Your task to perform on an android device: open wifi settings Image 0: 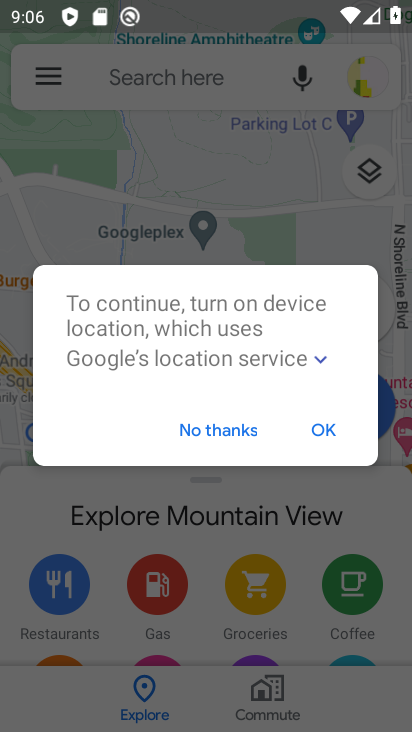
Step 0: press home button
Your task to perform on an android device: open wifi settings Image 1: 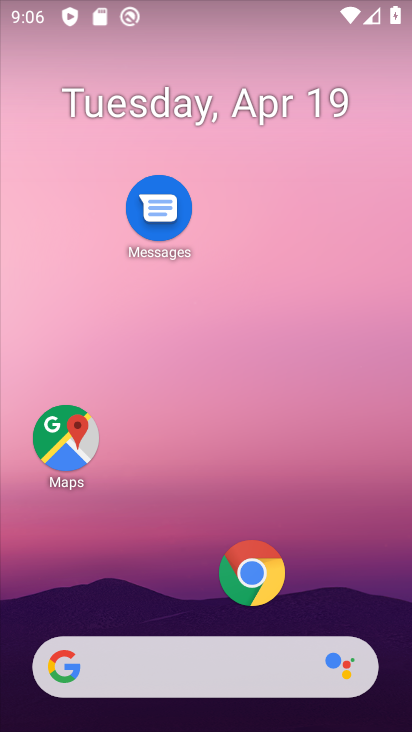
Step 1: drag from (149, 556) to (241, 163)
Your task to perform on an android device: open wifi settings Image 2: 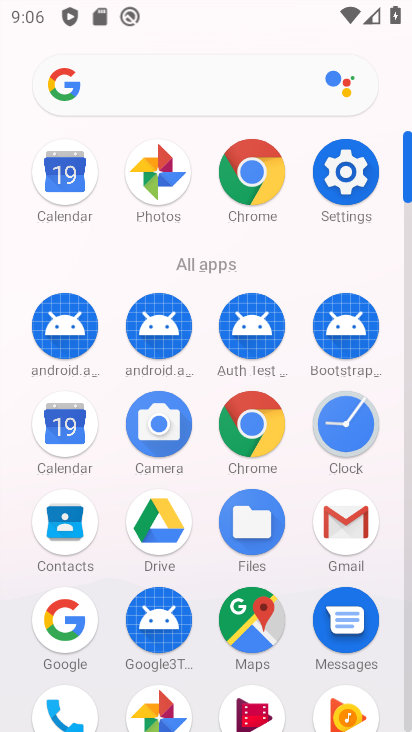
Step 2: click (346, 185)
Your task to perform on an android device: open wifi settings Image 3: 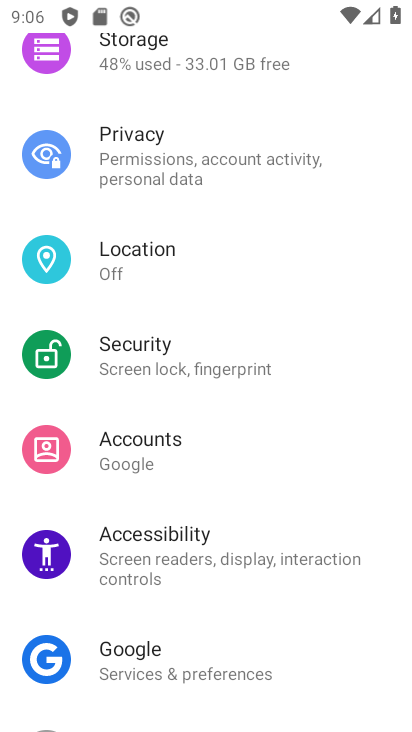
Step 3: drag from (249, 132) to (242, 573)
Your task to perform on an android device: open wifi settings Image 4: 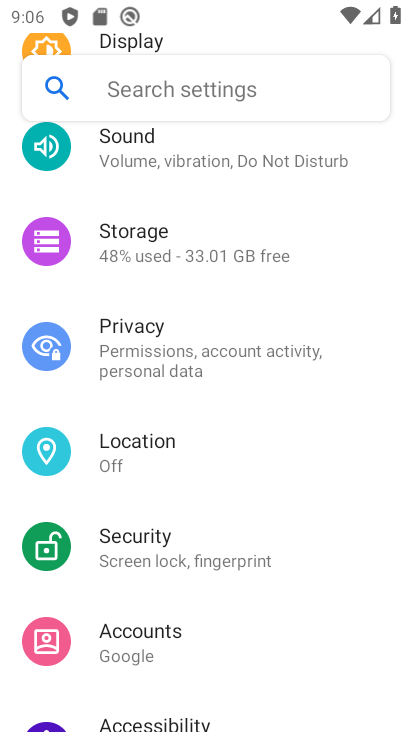
Step 4: drag from (269, 214) to (295, 648)
Your task to perform on an android device: open wifi settings Image 5: 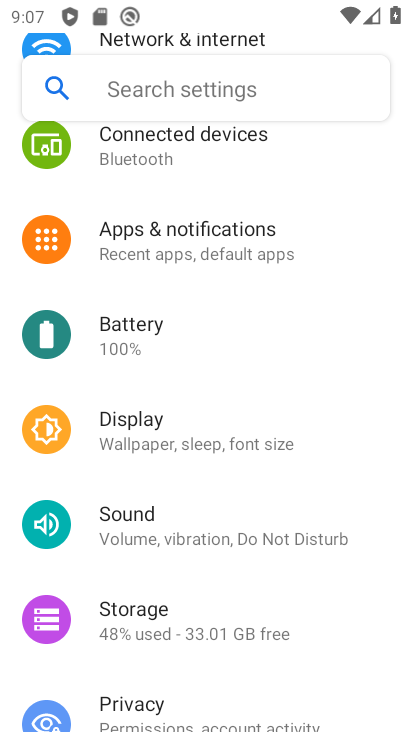
Step 5: drag from (319, 260) to (294, 645)
Your task to perform on an android device: open wifi settings Image 6: 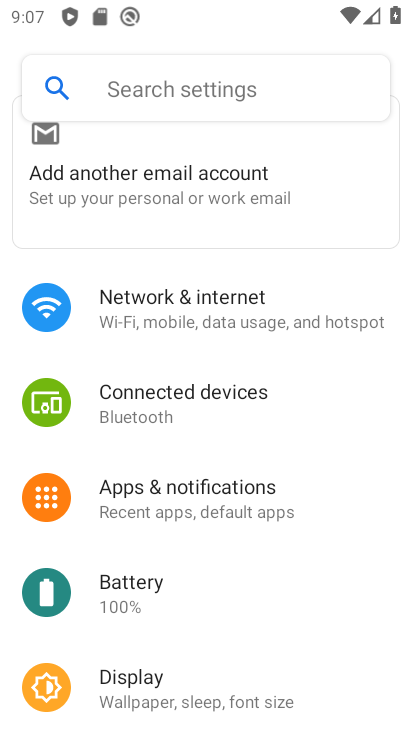
Step 6: click (242, 320)
Your task to perform on an android device: open wifi settings Image 7: 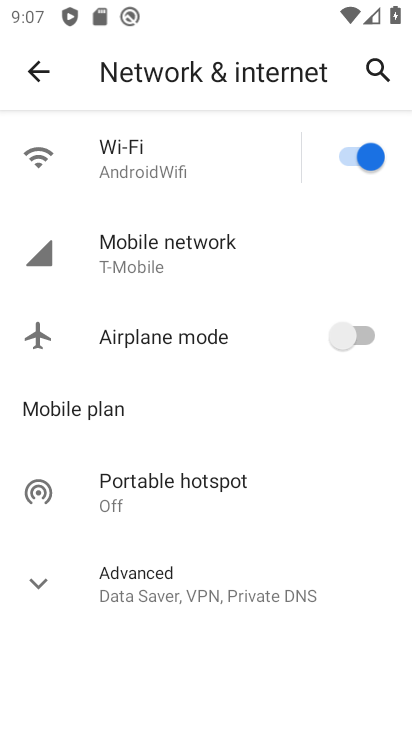
Step 7: click (186, 167)
Your task to perform on an android device: open wifi settings Image 8: 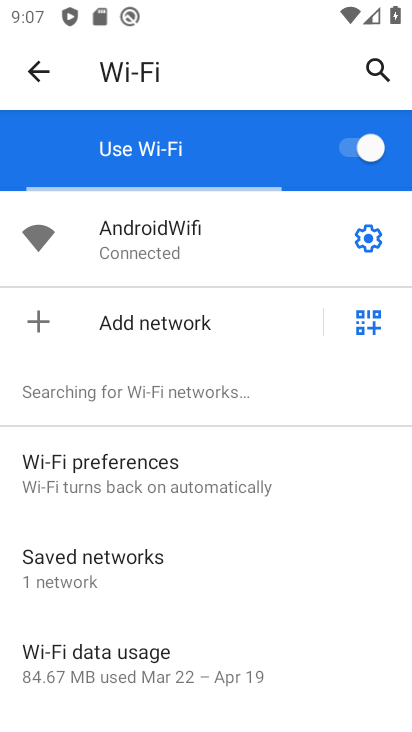
Step 8: task complete